Your task to perform on an android device: snooze an email in the gmail app Image 0: 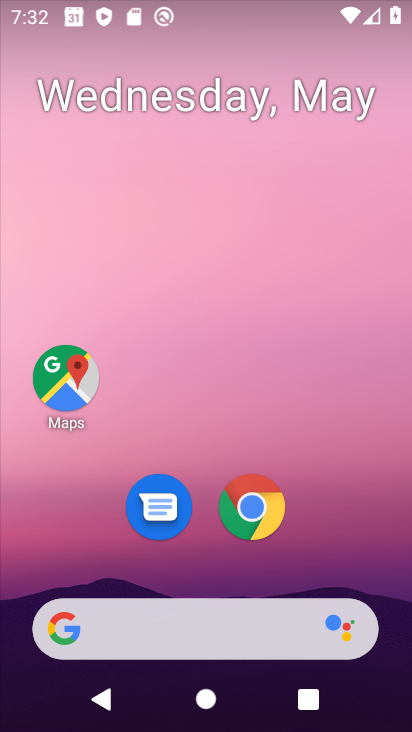
Step 0: drag from (267, 547) to (214, 173)
Your task to perform on an android device: snooze an email in the gmail app Image 1: 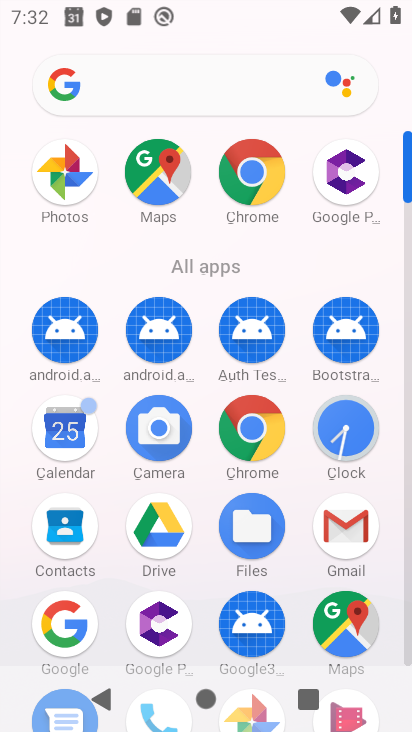
Step 1: click (349, 517)
Your task to perform on an android device: snooze an email in the gmail app Image 2: 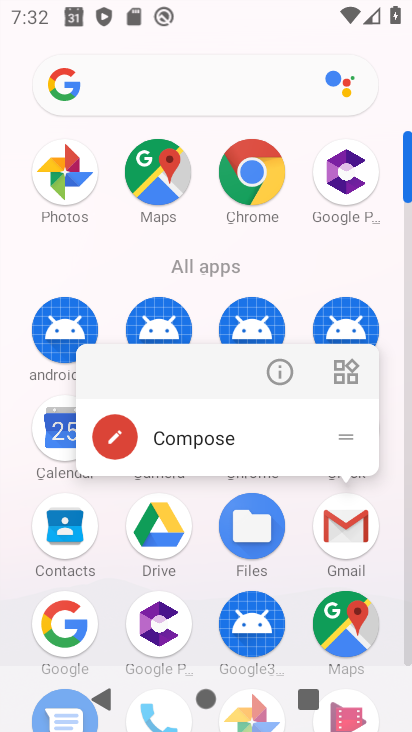
Step 2: click (351, 525)
Your task to perform on an android device: snooze an email in the gmail app Image 3: 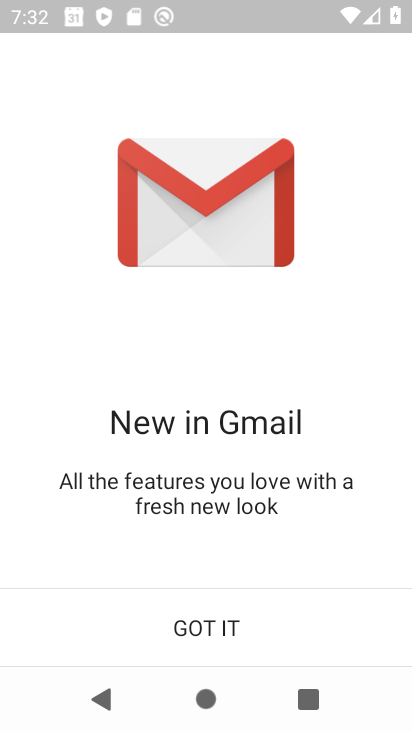
Step 3: click (208, 623)
Your task to perform on an android device: snooze an email in the gmail app Image 4: 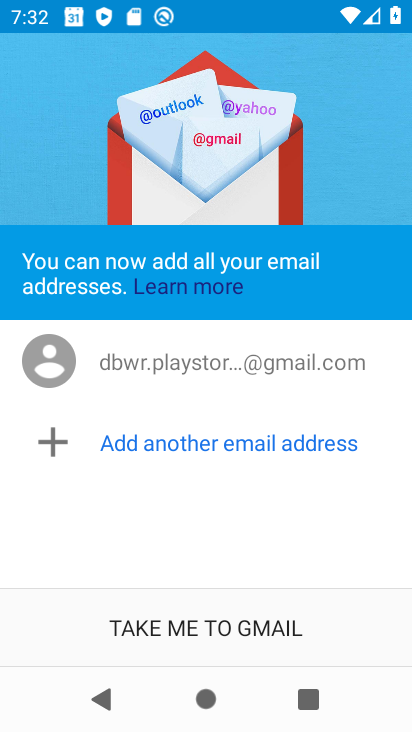
Step 4: click (207, 622)
Your task to perform on an android device: snooze an email in the gmail app Image 5: 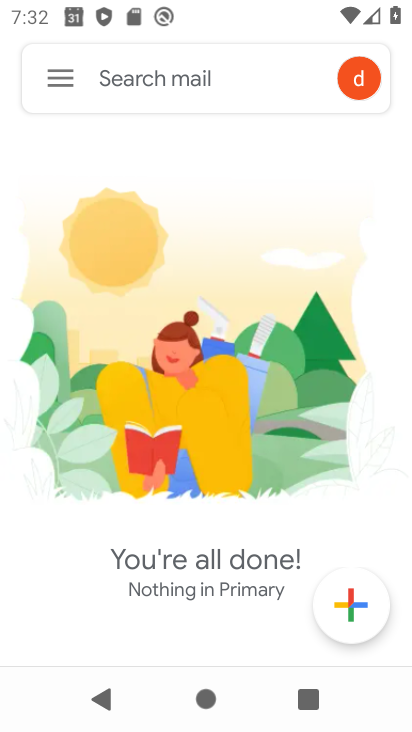
Step 5: click (65, 80)
Your task to perform on an android device: snooze an email in the gmail app Image 6: 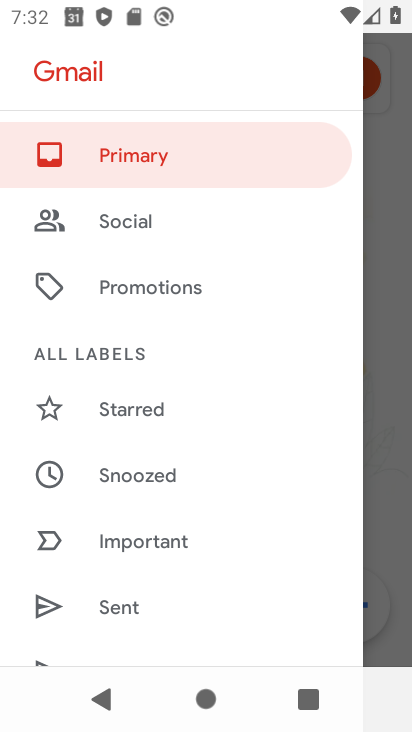
Step 6: click (175, 471)
Your task to perform on an android device: snooze an email in the gmail app Image 7: 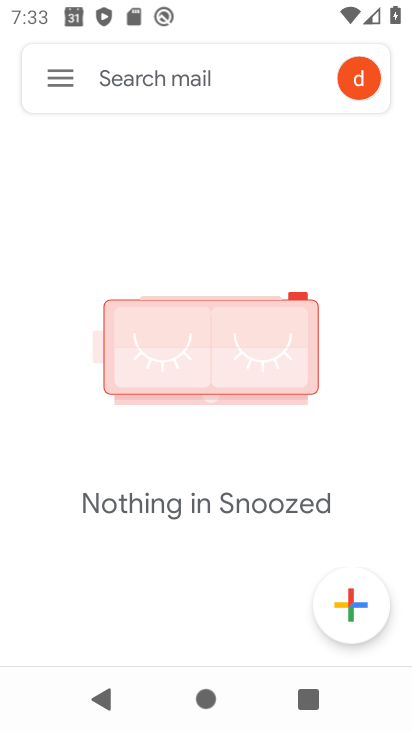
Step 7: task complete